Your task to perform on an android device: Open calendar and show me the second week of next month Image 0: 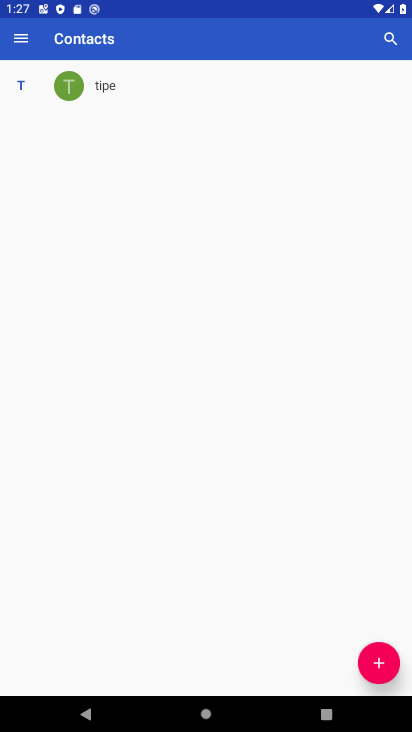
Step 0: press home button
Your task to perform on an android device: Open calendar and show me the second week of next month Image 1: 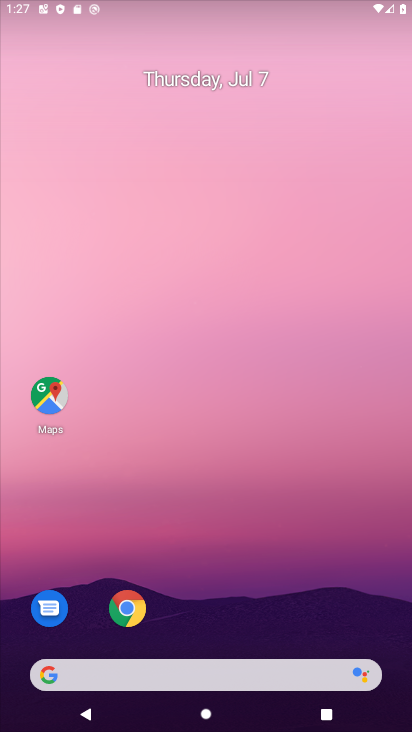
Step 1: drag from (292, 580) to (347, 60)
Your task to perform on an android device: Open calendar and show me the second week of next month Image 2: 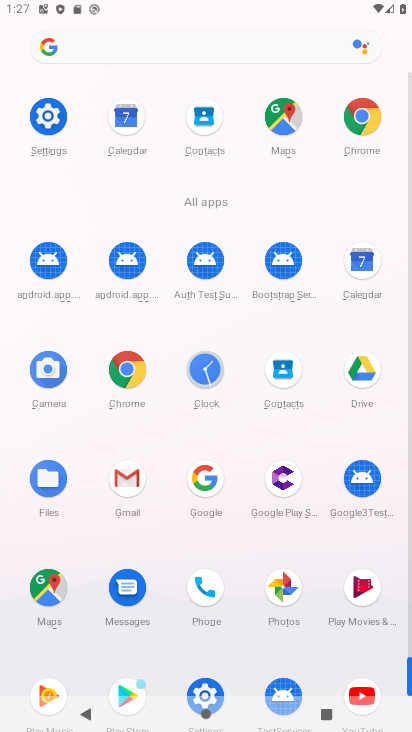
Step 2: click (373, 266)
Your task to perform on an android device: Open calendar and show me the second week of next month Image 3: 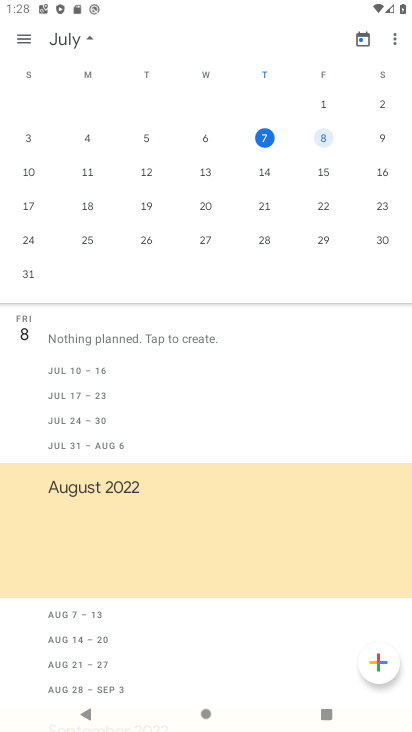
Step 3: drag from (295, 186) to (75, 236)
Your task to perform on an android device: Open calendar and show me the second week of next month Image 4: 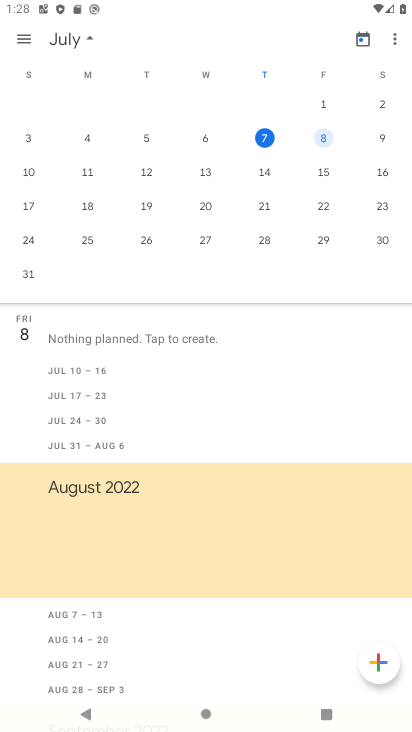
Step 4: click (195, 139)
Your task to perform on an android device: Open calendar and show me the second week of next month Image 5: 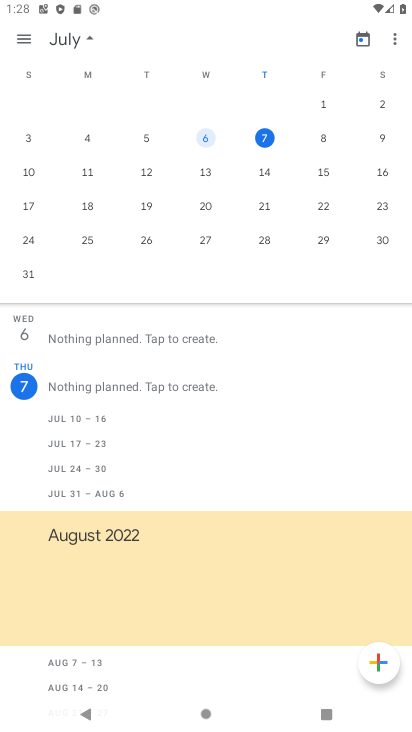
Step 5: task complete